Your task to perform on an android device: Check my email inbox Image 0: 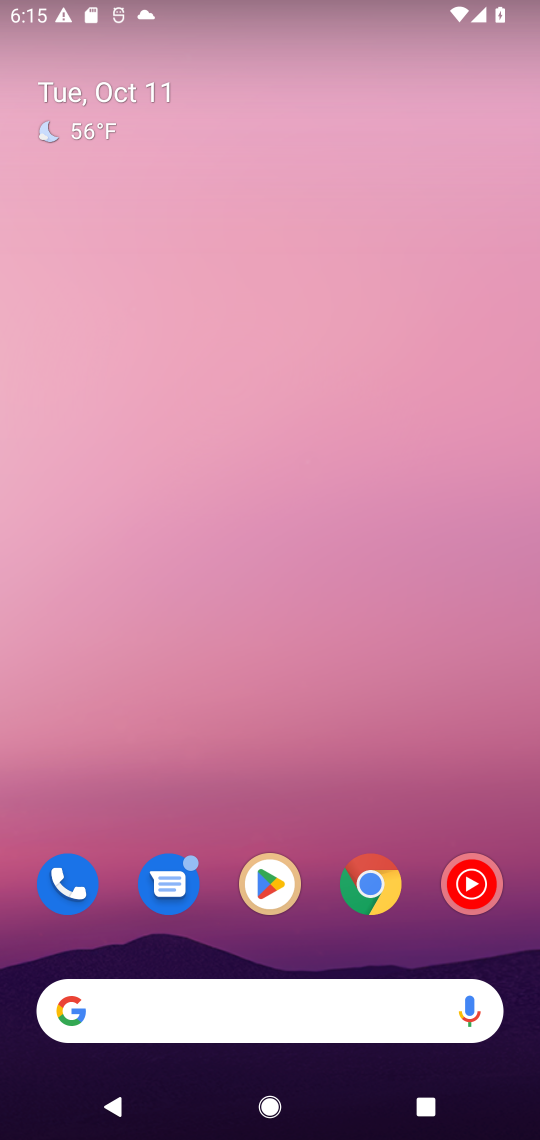
Step 0: drag from (332, 967) to (351, 71)
Your task to perform on an android device: Check my email inbox Image 1: 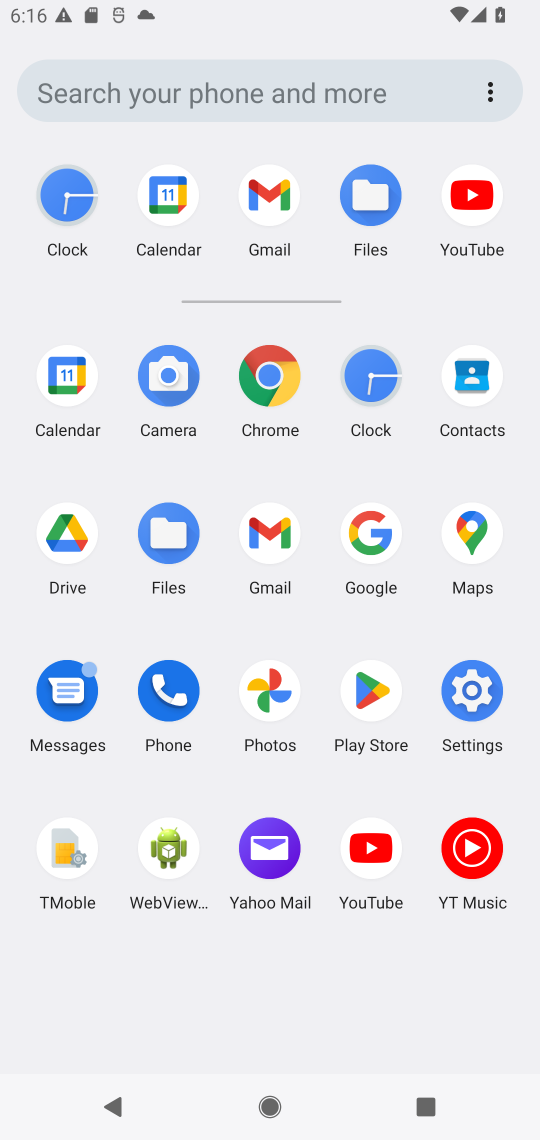
Step 1: click (270, 548)
Your task to perform on an android device: Check my email inbox Image 2: 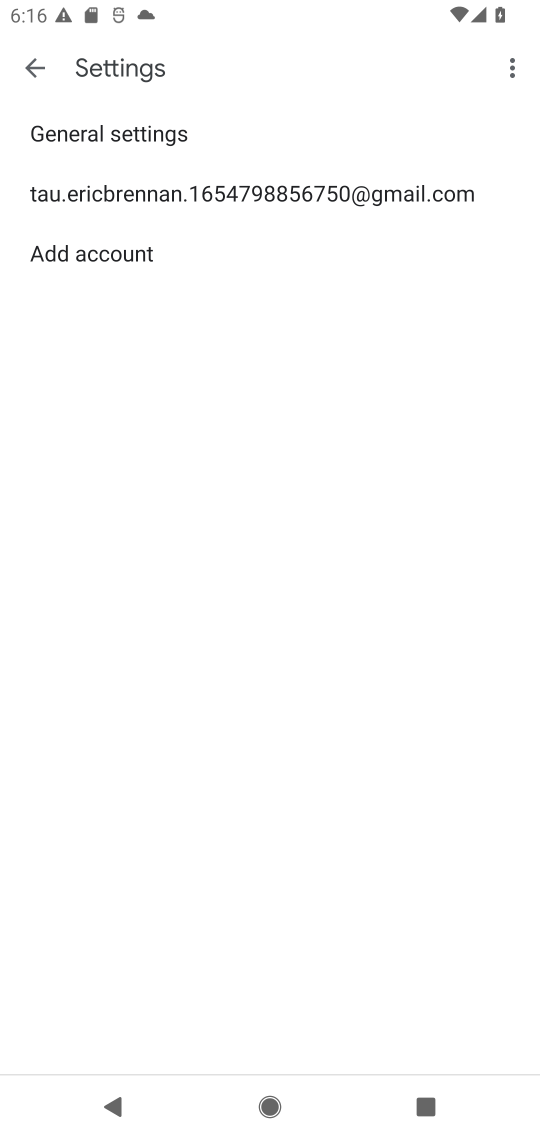
Step 2: click (44, 78)
Your task to perform on an android device: Check my email inbox Image 3: 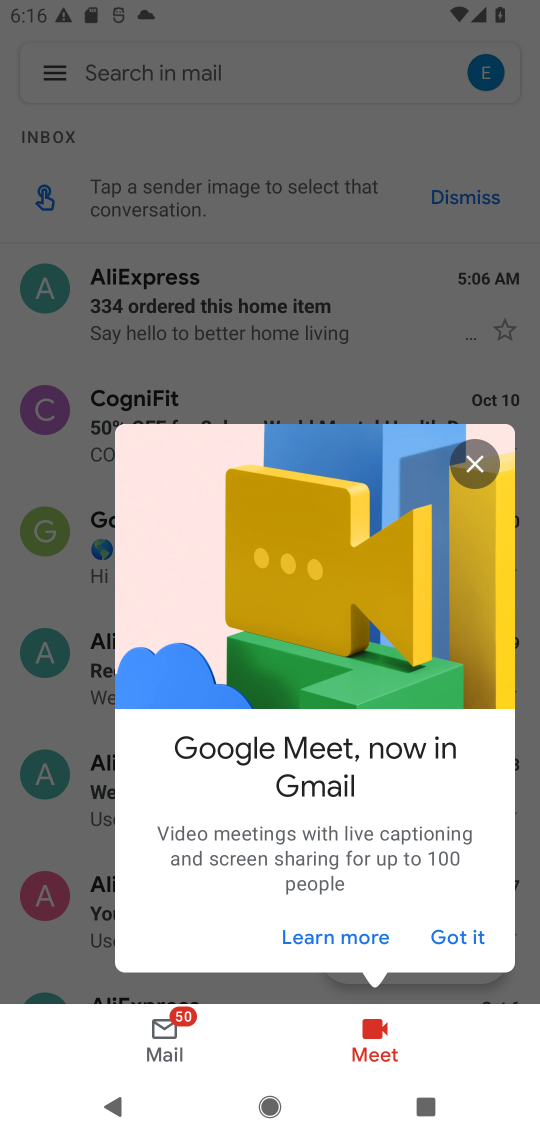
Step 3: task complete